Your task to perform on an android device: Show me the alarms in the clock app Image 0: 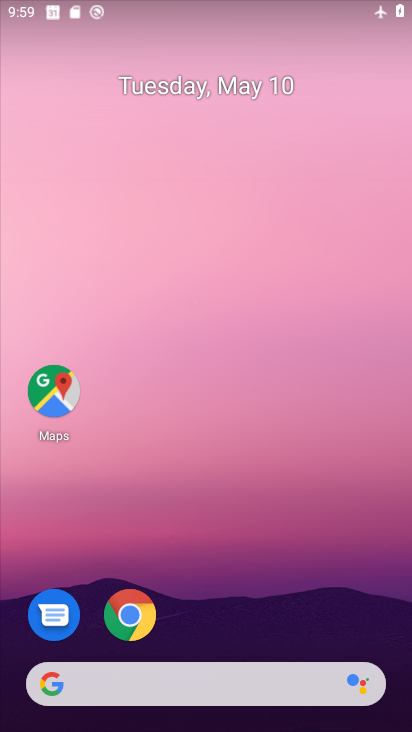
Step 0: click (406, 400)
Your task to perform on an android device: Show me the alarms in the clock app Image 1: 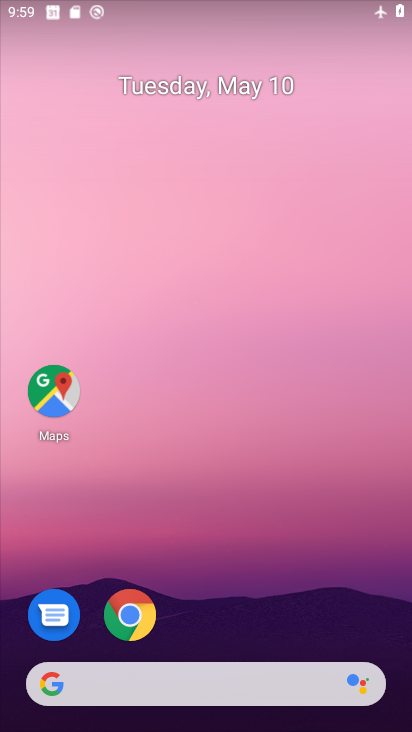
Step 1: drag from (192, 653) to (274, 160)
Your task to perform on an android device: Show me the alarms in the clock app Image 2: 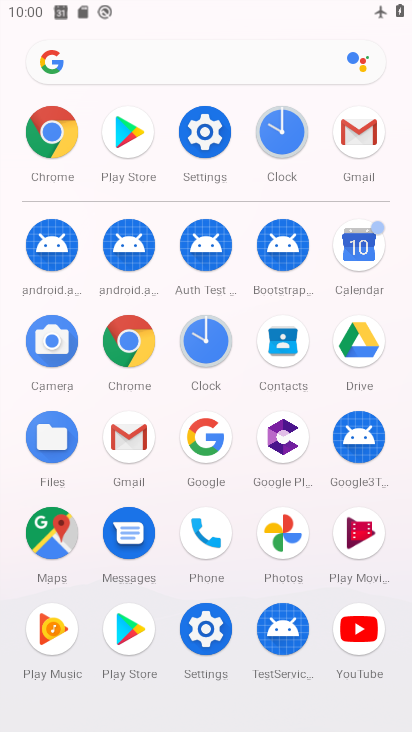
Step 2: click (239, 340)
Your task to perform on an android device: Show me the alarms in the clock app Image 3: 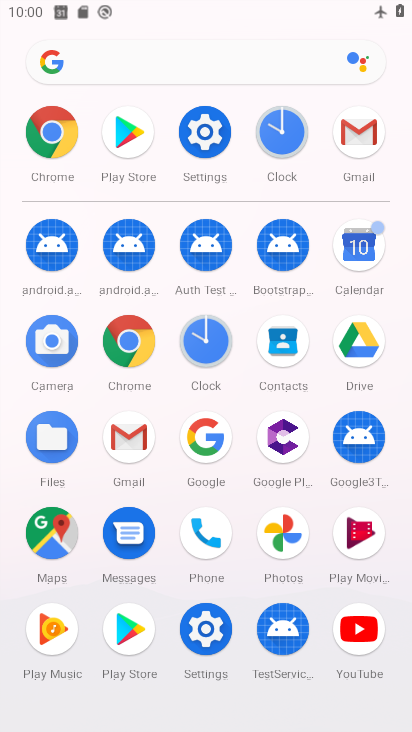
Step 3: click (231, 338)
Your task to perform on an android device: Show me the alarms in the clock app Image 4: 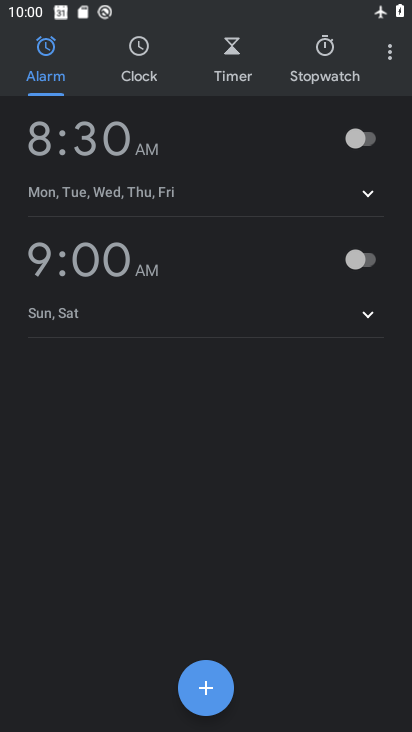
Step 4: click (48, 74)
Your task to perform on an android device: Show me the alarms in the clock app Image 5: 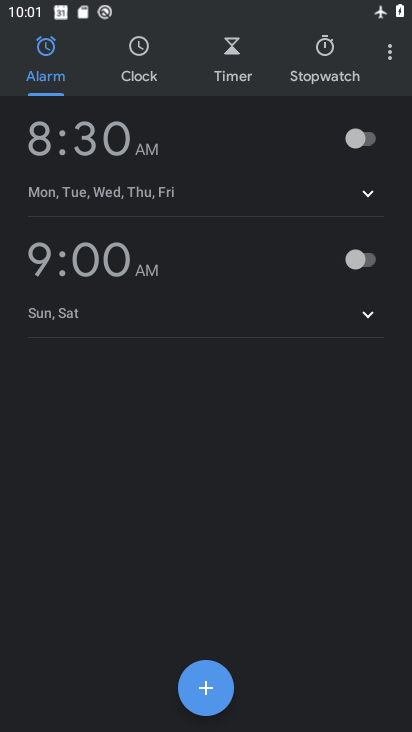
Step 5: task complete